Your task to perform on an android device: Open wifi settings Image 0: 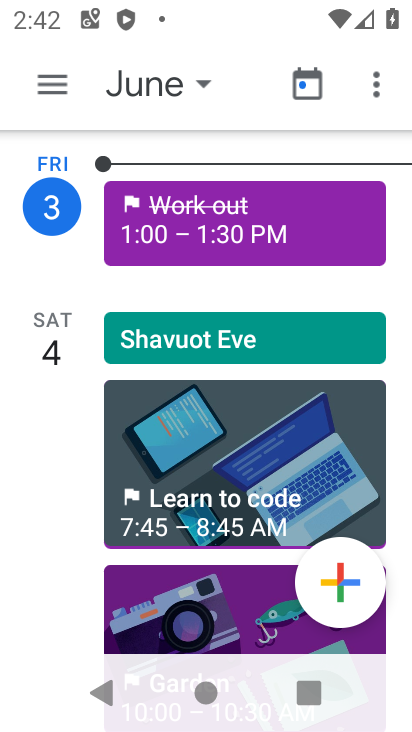
Step 0: press home button
Your task to perform on an android device: Open wifi settings Image 1: 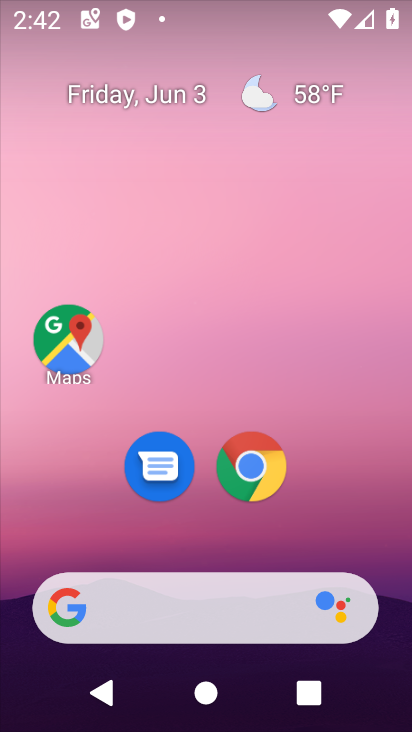
Step 1: drag from (325, 535) to (301, 304)
Your task to perform on an android device: Open wifi settings Image 2: 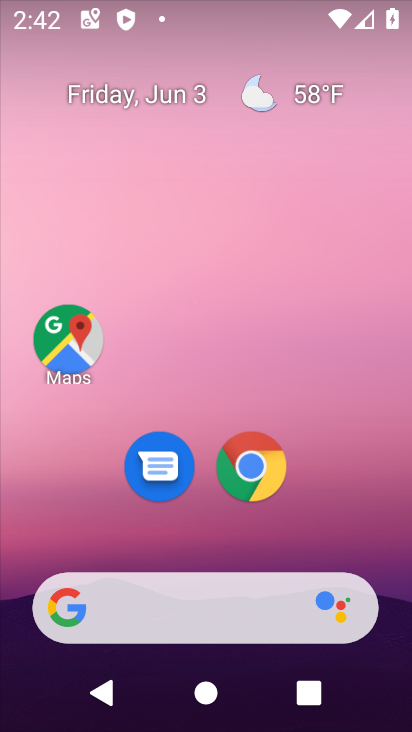
Step 2: drag from (364, 491) to (367, 1)
Your task to perform on an android device: Open wifi settings Image 3: 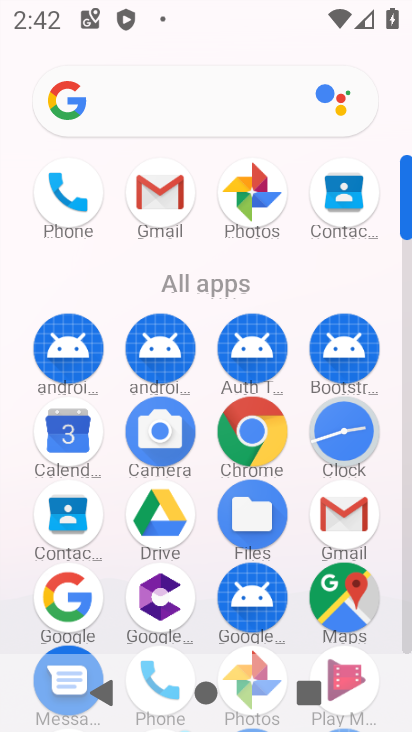
Step 3: drag from (303, 517) to (315, 362)
Your task to perform on an android device: Open wifi settings Image 4: 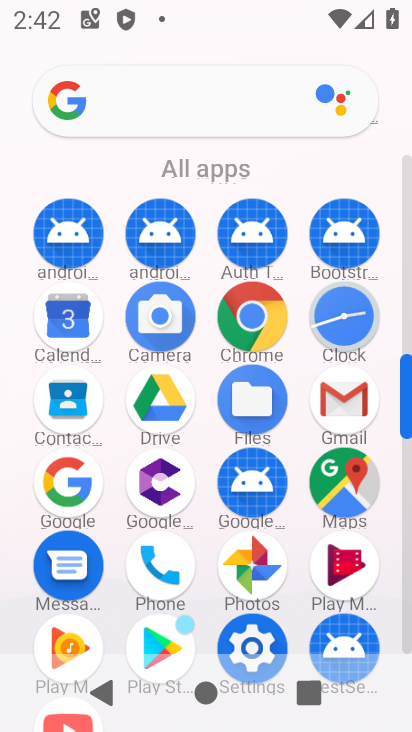
Step 4: click (241, 632)
Your task to perform on an android device: Open wifi settings Image 5: 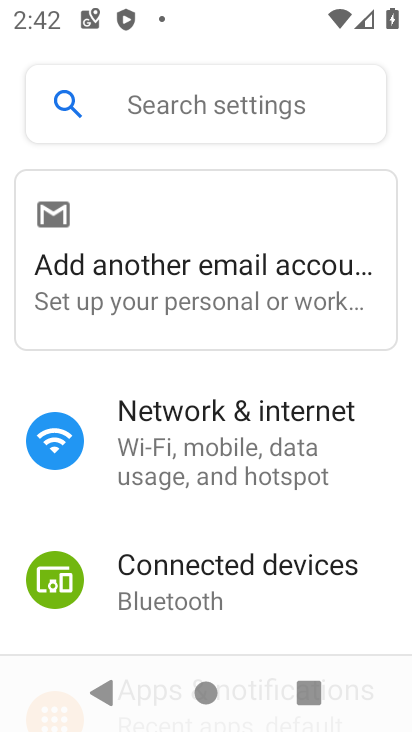
Step 5: click (227, 231)
Your task to perform on an android device: Open wifi settings Image 6: 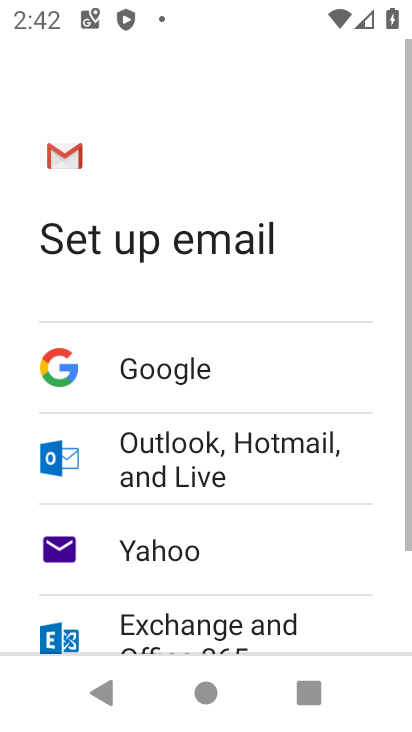
Step 6: press back button
Your task to perform on an android device: Open wifi settings Image 7: 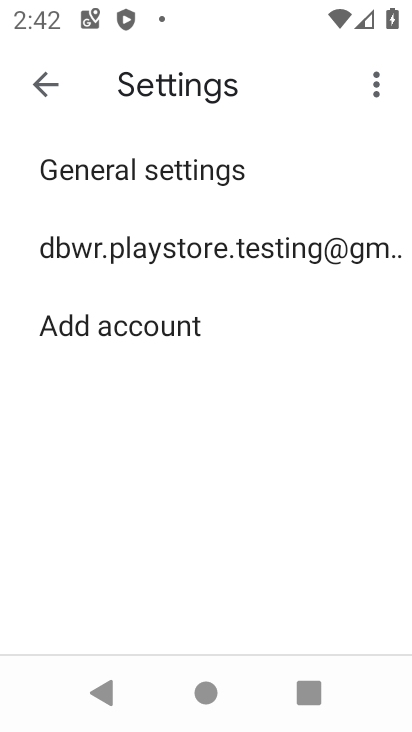
Step 7: press back button
Your task to perform on an android device: Open wifi settings Image 8: 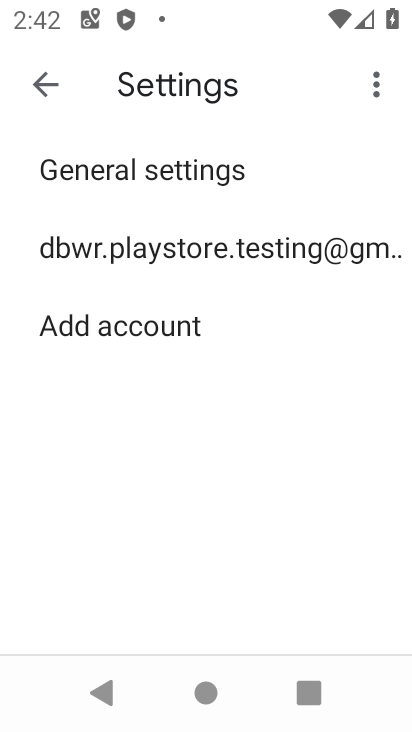
Step 8: press back button
Your task to perform on an android device: Open wifi settings Image 9: 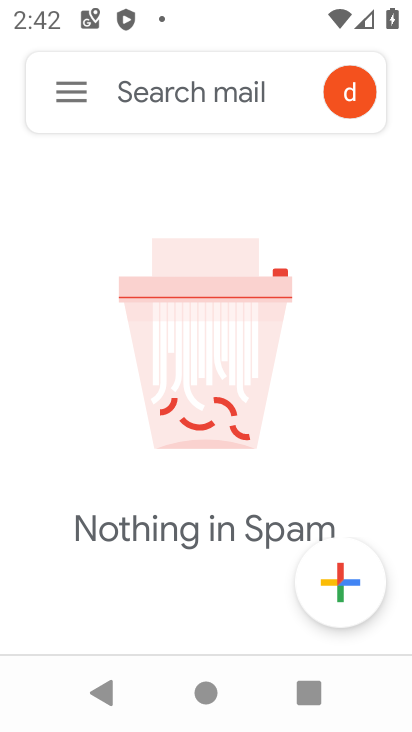
Step 9: press home button
Your task to perform on an android device: Open wifi settings Image 10: 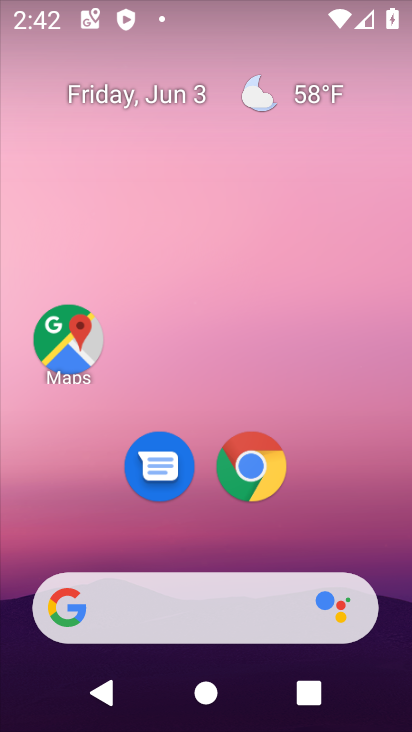
Step 10: drag from (345, 496) to (308, 166)
Your task to perform on an android device: Open wifi settings Image 11: 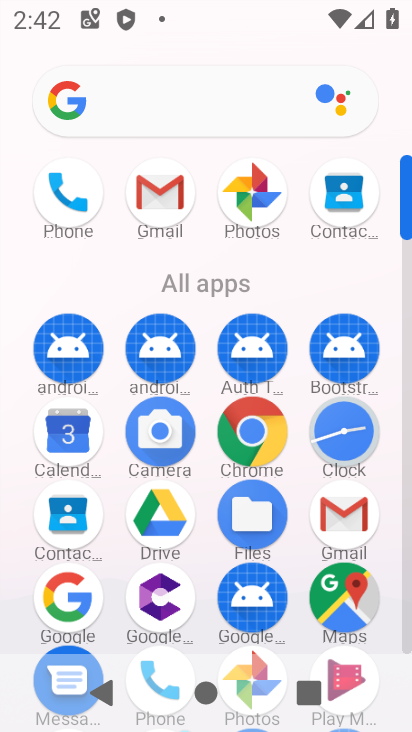
Step 11: click (407, 549)
Your task to perform on an android device: Open wifi settings Image 12: 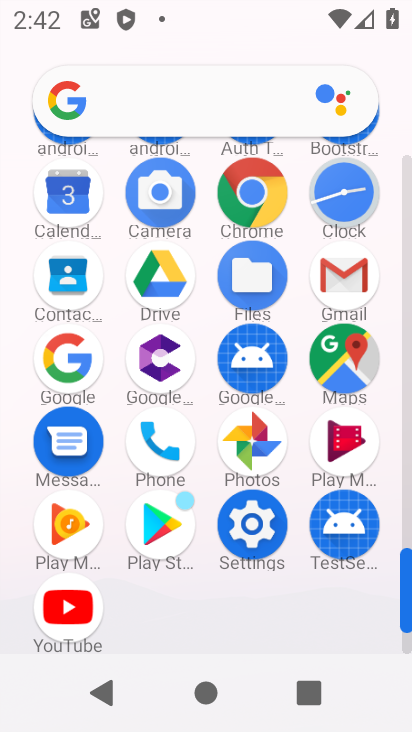
Step 12: click (262, 521)
Your task to perform on an android device: Open wifi settings Image 13: 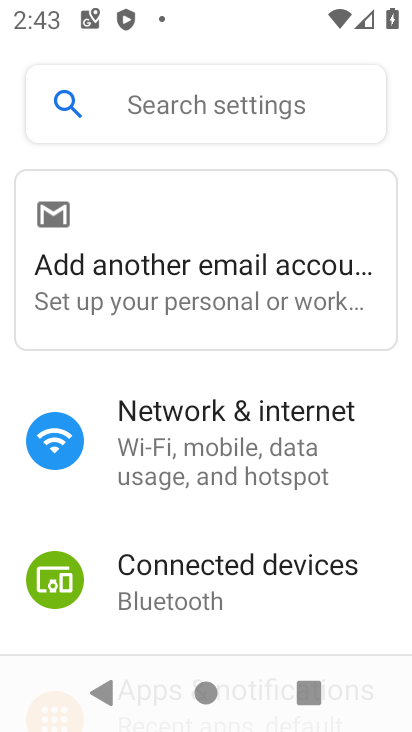
Step 13: click (253, 459)
Your task to perform on an android device: Open wifi settings Image 14: 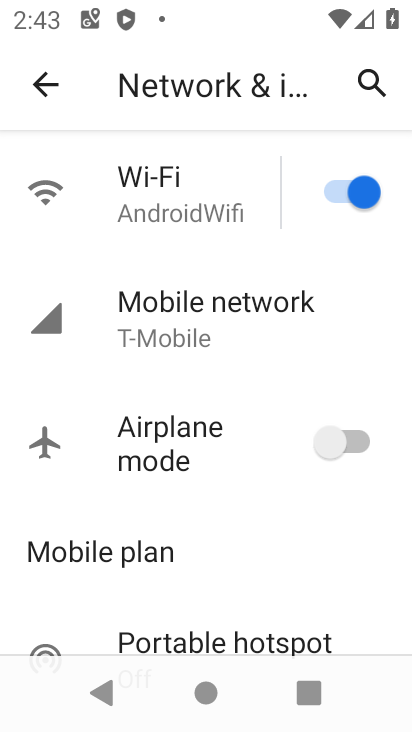
Step 14: task complete